Your task to perform on an android device: toggle translation in the chrome app Image 0: 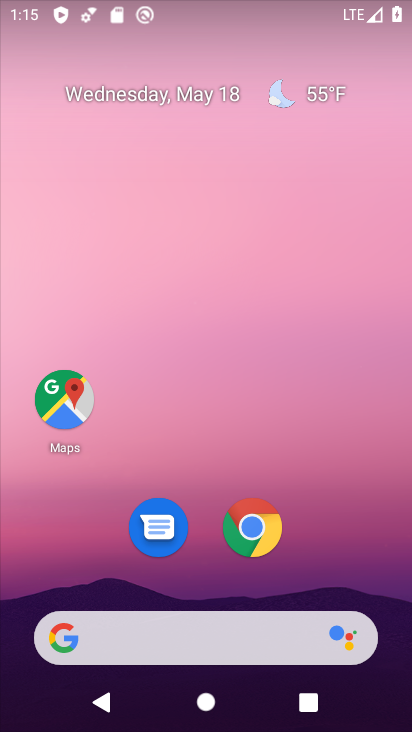
Step 0: click (273, 525)
Your task to perform on an android device: toggle translation in the chrome app Image 1: 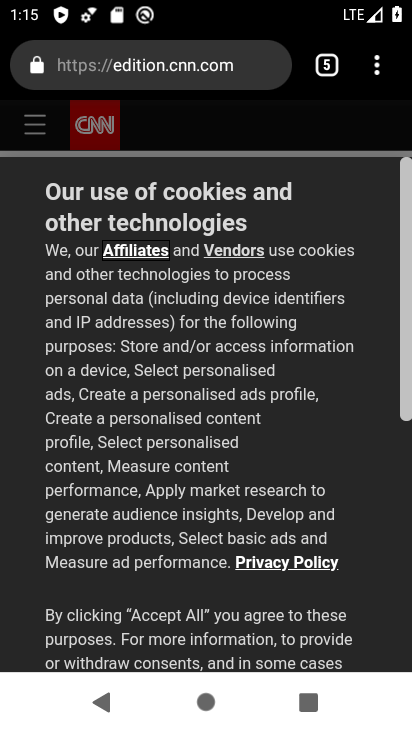
Step 1: click (369, 73)
Your task to perform on an android device: toggle translation in the chrome app Image 2: 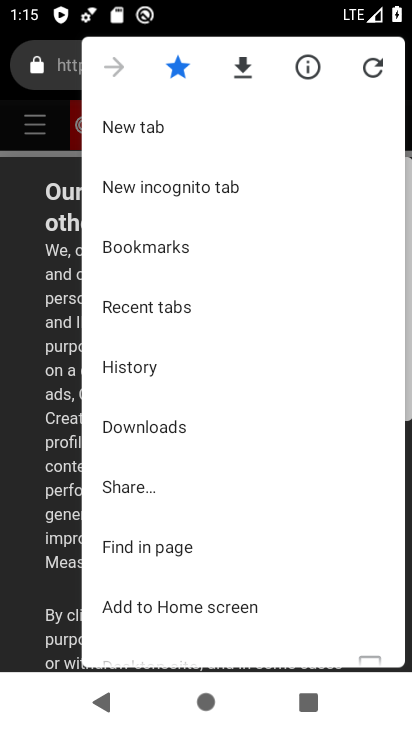
Step 2: drag from (229, 563) to (243, 140)
Your task to perform on an android device: toggle translation in the chrome app Image 3: 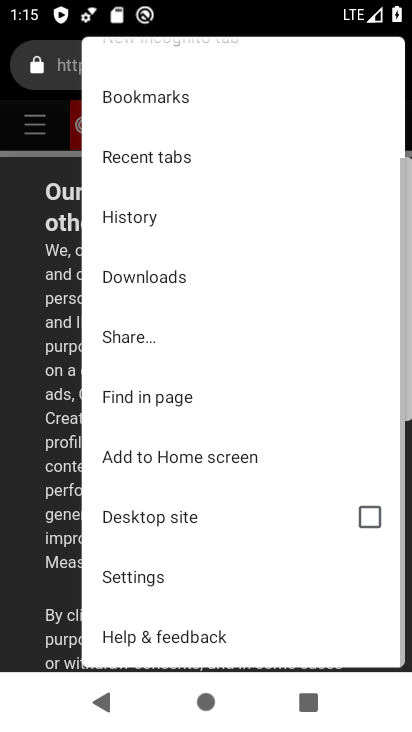
Step 3: click (210, 568)
Your task to perform on an android device: toggle translation in the chrome app Image 4: 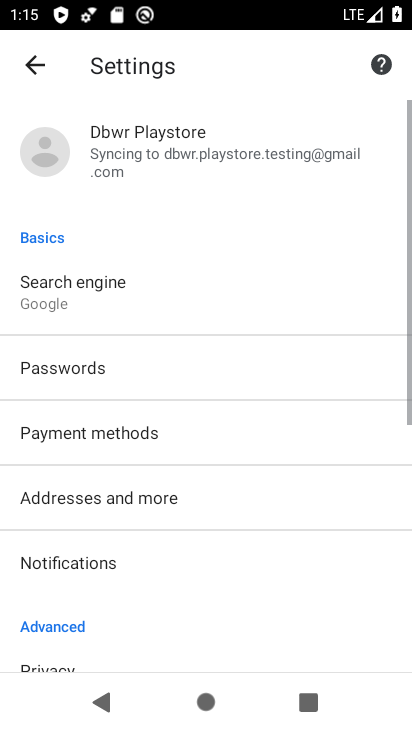
Step 4: drag from (245, 611) to (245, 235)
Your task to perform on an android device: toggle translation in the chrome app Image 5: 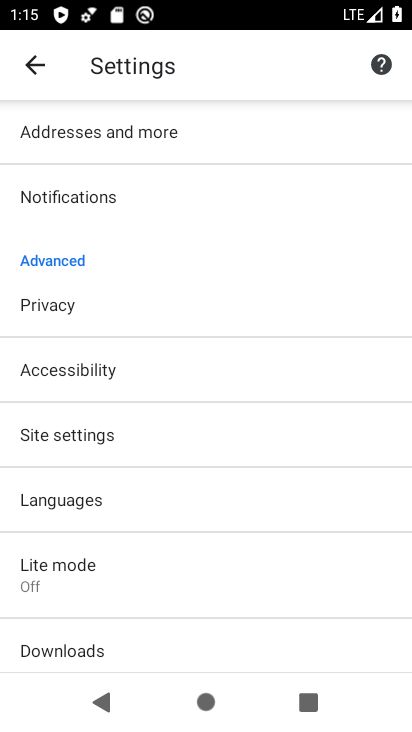
Step 5: click (186, 509)
Your task to perform on an android device: toggle translation in the chrome app Image 6: 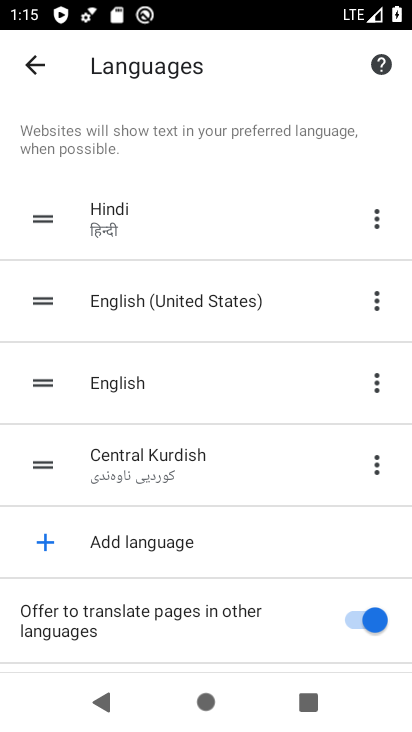
Step 6: click (375, 618)
Your task to perform on an android device: toggle translation in the chrome app Image 7: 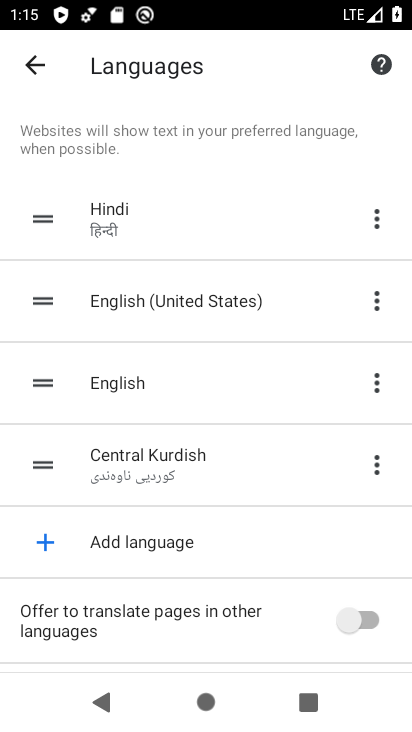
Step 7: task complete